Your task to perform on an android device: Go to eBay Image 0: 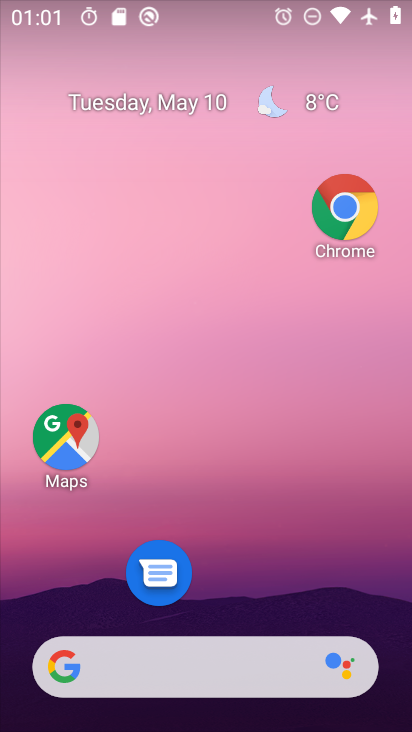
Step 0: drag from (333, 481) to (316, 151)
Your task to perform on an android device: Go to eBay Image 1: 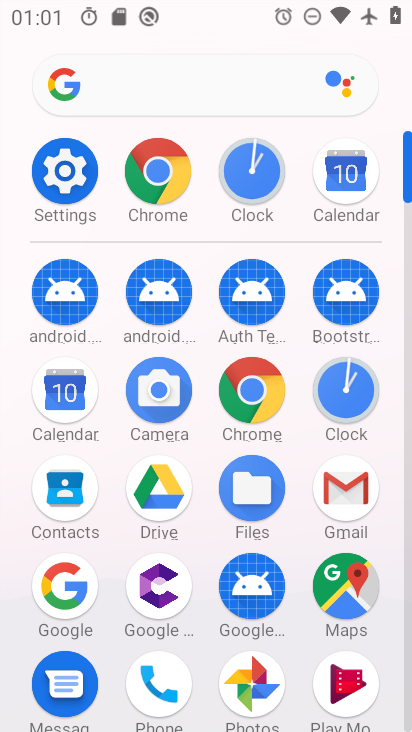
Step 1: click (258, 388)
Your task to perform on an android device: Go to eBay Image 2: 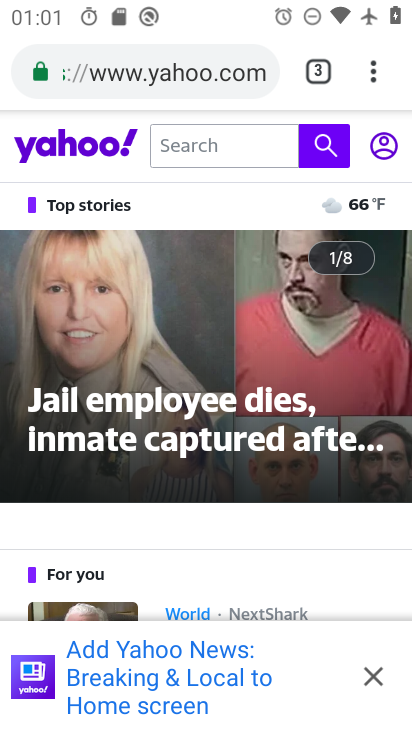
Step 2: click (196, 68)
Your task to perform on an android device: Go to eBay Image 3: 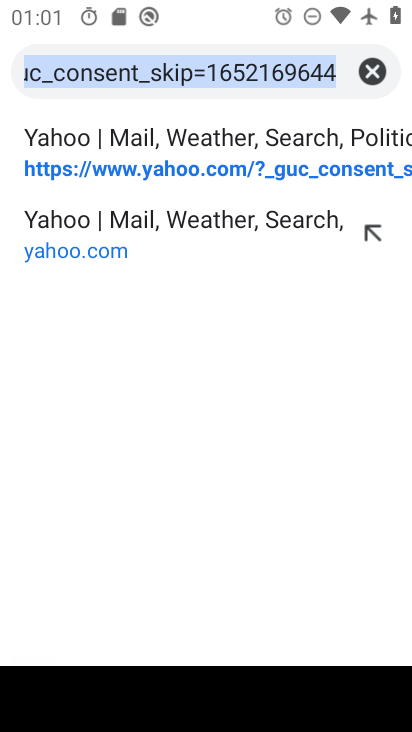
Step 3: type "ebay"
Your task to perform on an android device: Go to eBay Image 4: 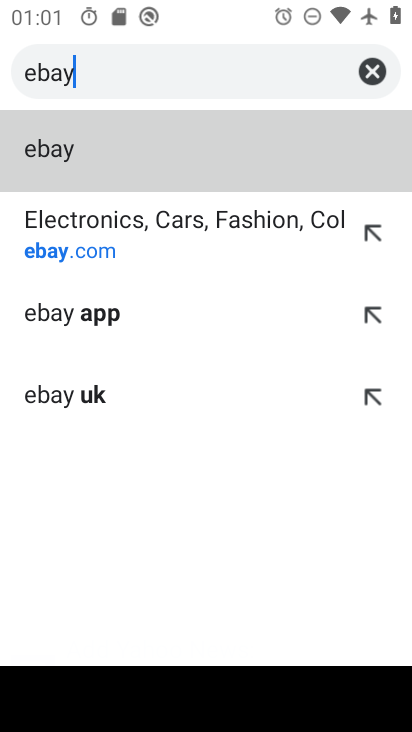
Step 4: click (60, 248)
Your task to perform on an android device: Go to eBay Image 5: 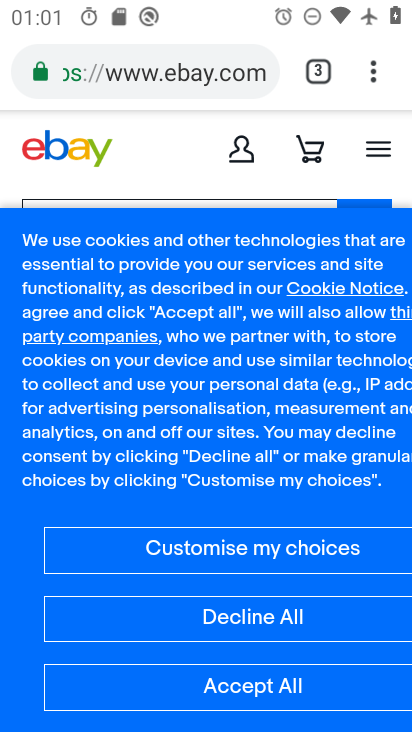
Step 5: task complete